Your task to perform on an android device: Open my contact list Image 0: 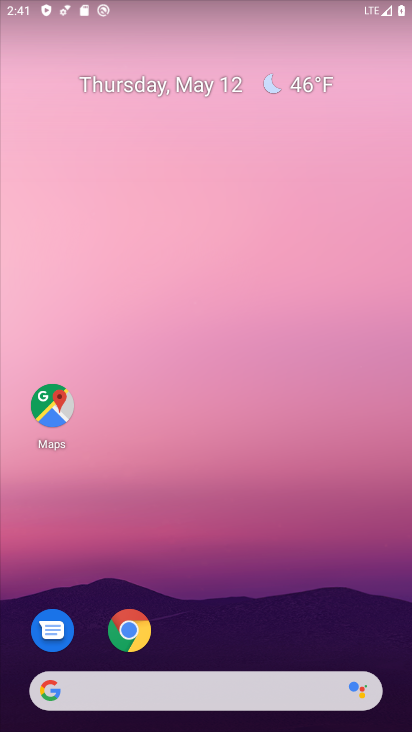
Step 0: drag from (257, 580) to (261, 130)
Your task to perform on an android device: Open my contact list Image 1: 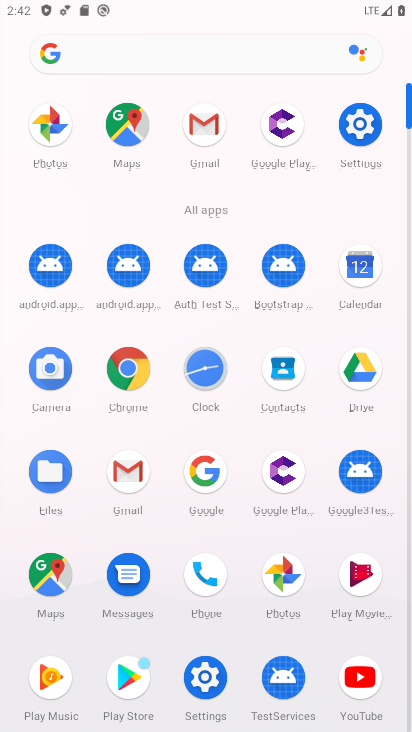
Step 1: click (282, 370)
Your task to perform on an android device: Open my contact list Image 2: 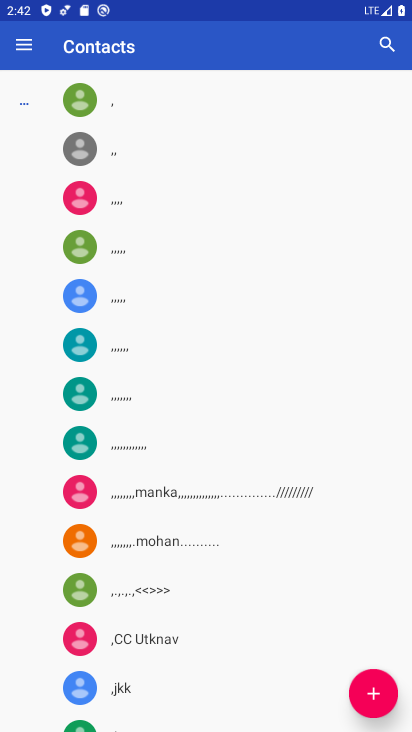
Step 2: task complete